Your task to perform on an android device: Do I have any events today? Image 0: 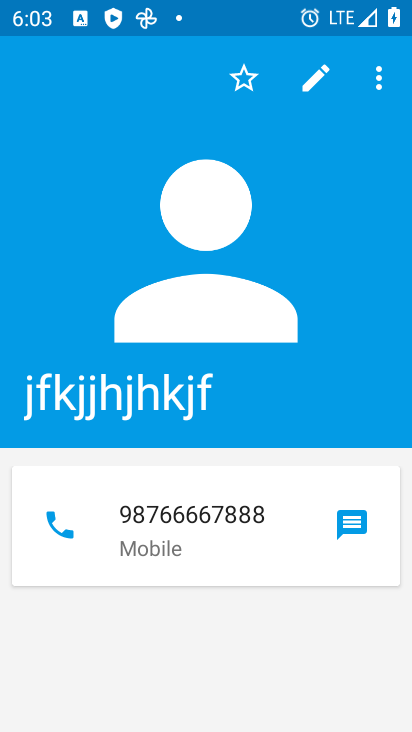
Step 0: press home button
Your task to perform on an android device: Do I have any events today? Image 1: 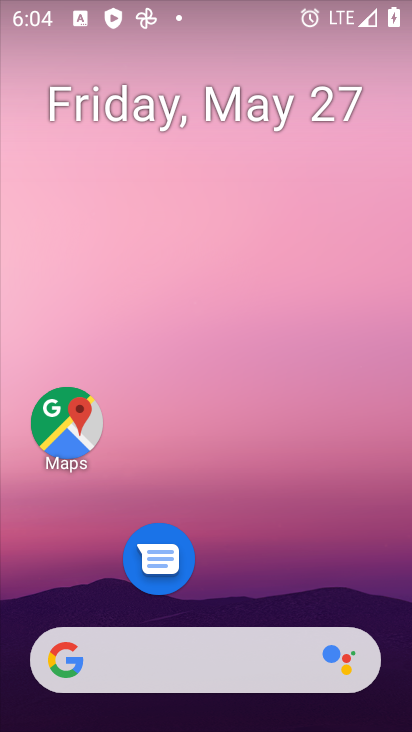
Step 1: drag from (270, 692) to (319, 93)
Your task to perform on an android device: Do I have any events today? Image 2: 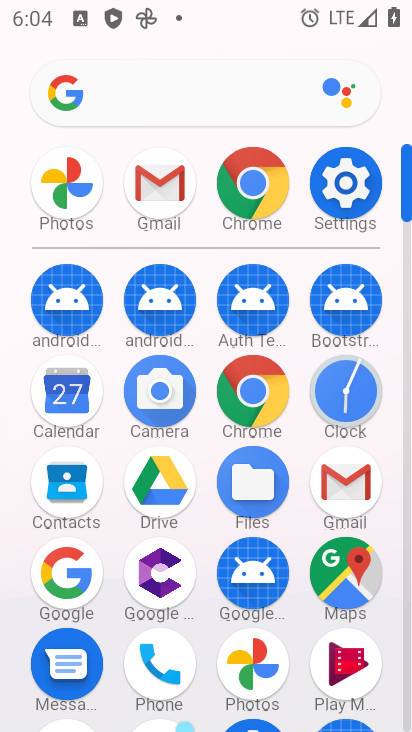
Step 2: click (69, 398)
Your task to perform on an android device: Do I have any events today? Image 3: 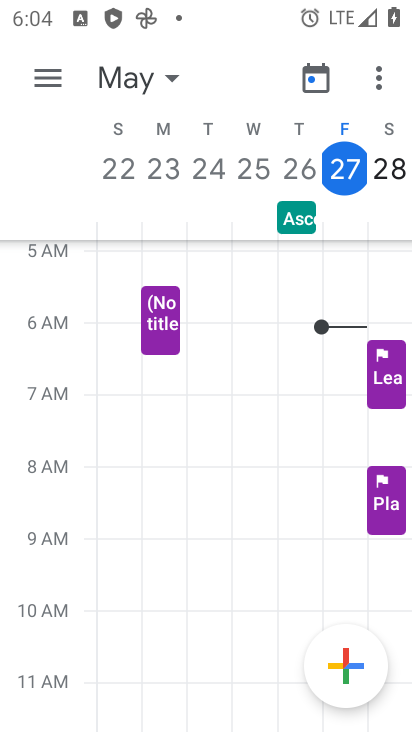
Step 3: click (169, 78)
Your task to perform on an android device: Do I have any events today? Image 4: 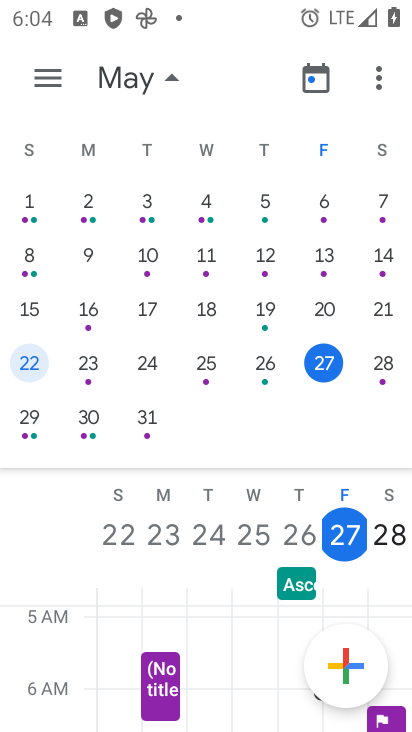
Step 4: task complete